Your task to perform on an android device: delete browsing data in the chrome app Image 0: 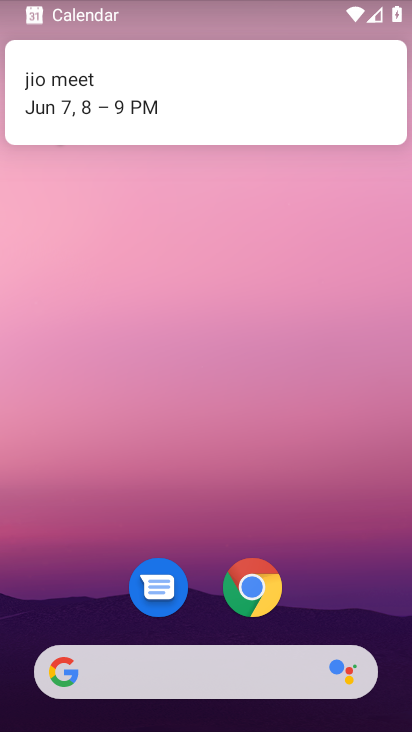
Step 0: drag from (350, 578) to (342, 87)
Your task to perform on an android device: delete browsing data in the chrome app Image 1: 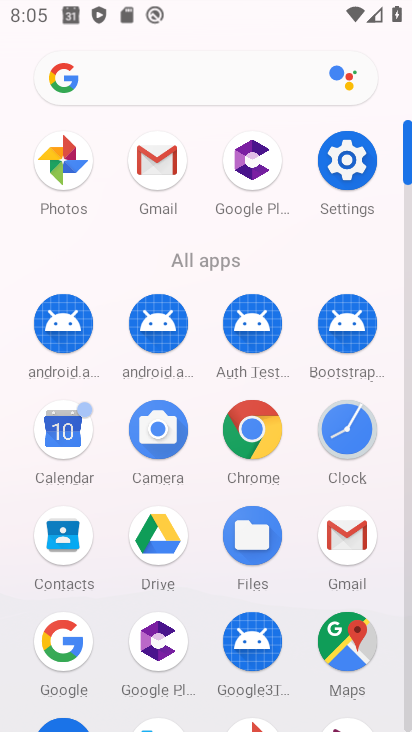
Step 1: click (251, 438)
Your task to perform on an android device: delete browsing data in the chrome app Image 2: 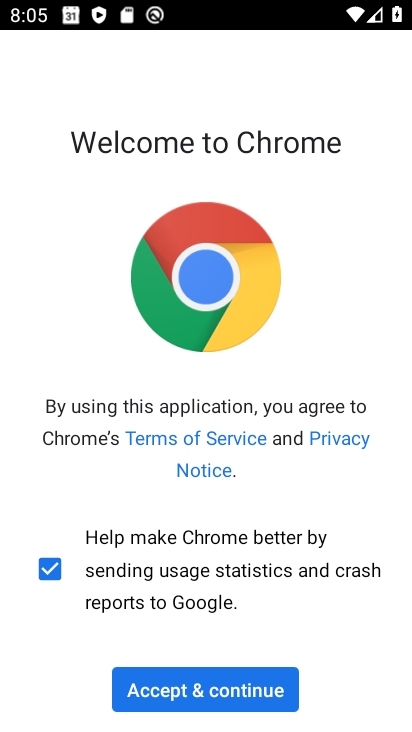
Step 2: click (212, 679)
Your task to perform on an android device: delete browsing data in the chrome app Image 3: 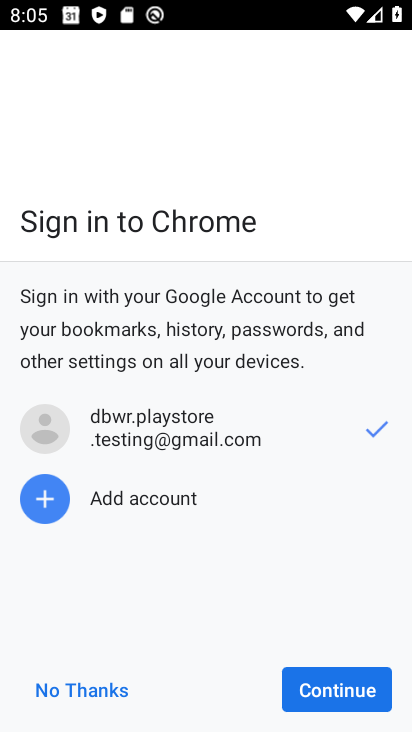
Step 3: click (56, 687)
Your task to perform on an android device: delete browsing data in the chrome app Image 4: 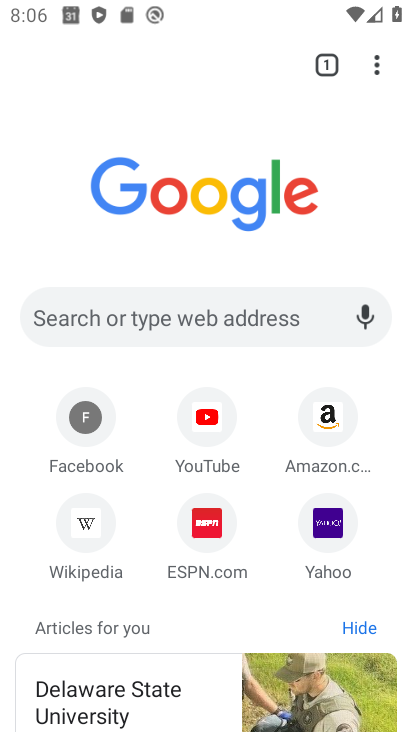
Step 4: task complete